Your task to perform on an android device: uninstall "VLC for Android" Image 0: 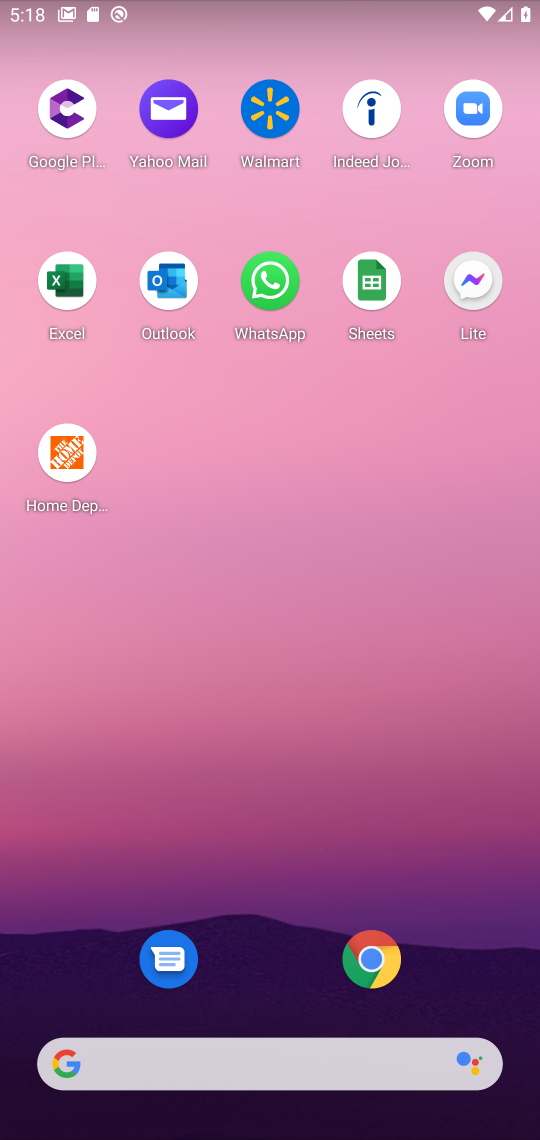
Step 0: drag from (258, 1044) to (277, 568)
Your task to perform on an android device: uninstall "VLC for Android" Image 1: 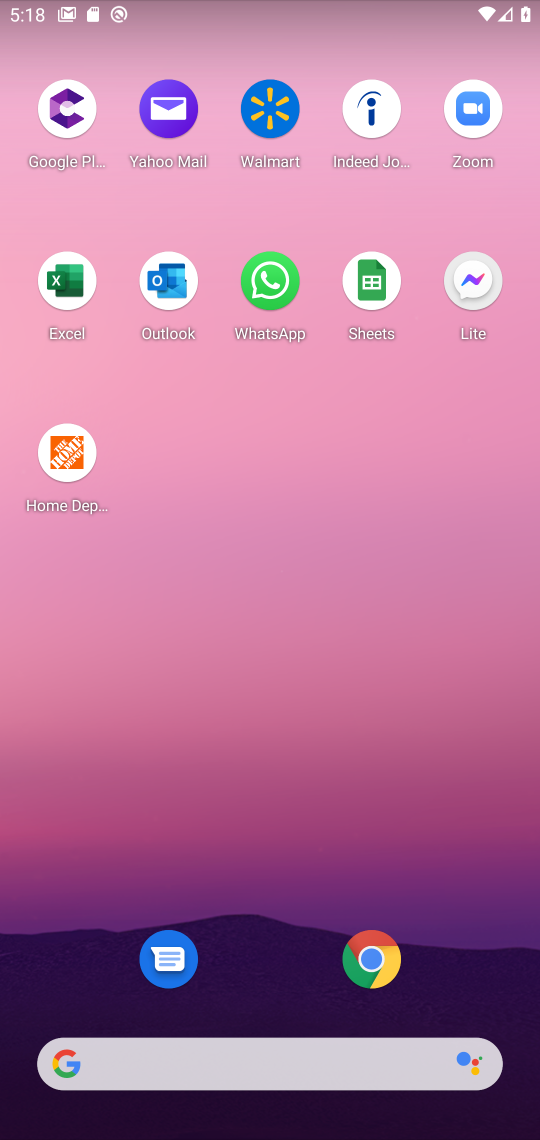
Step 1: drag from (306, 883) to (306, 462)
Your task to perform on an android device: uninstall "VLC for Android" Image 2: 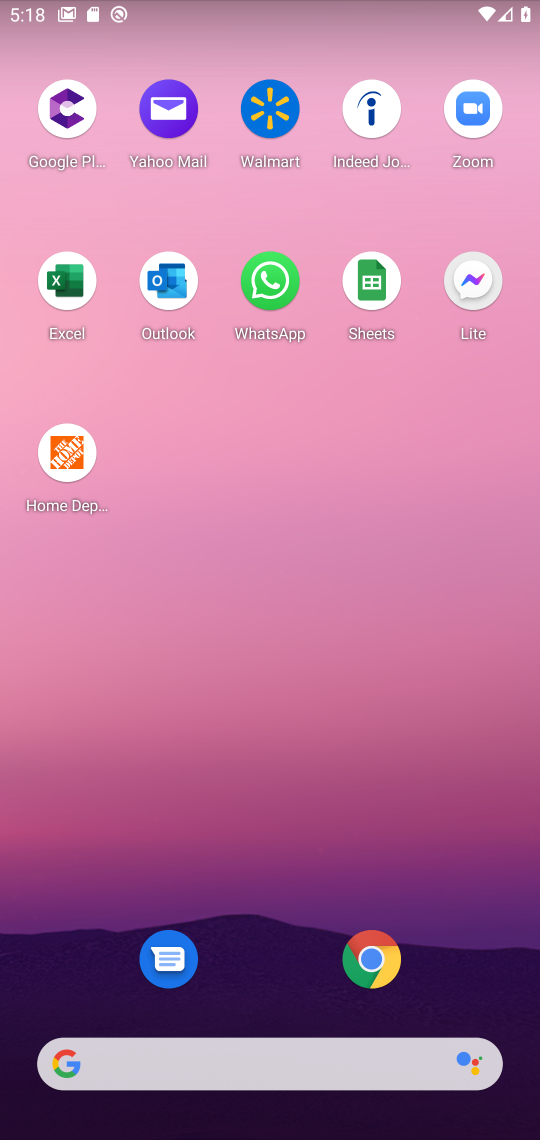
Step 2: drag from (256, 1051) to (256, 313)
Your task to perform on an android device: uninstall "VLC for Android" Image 3: 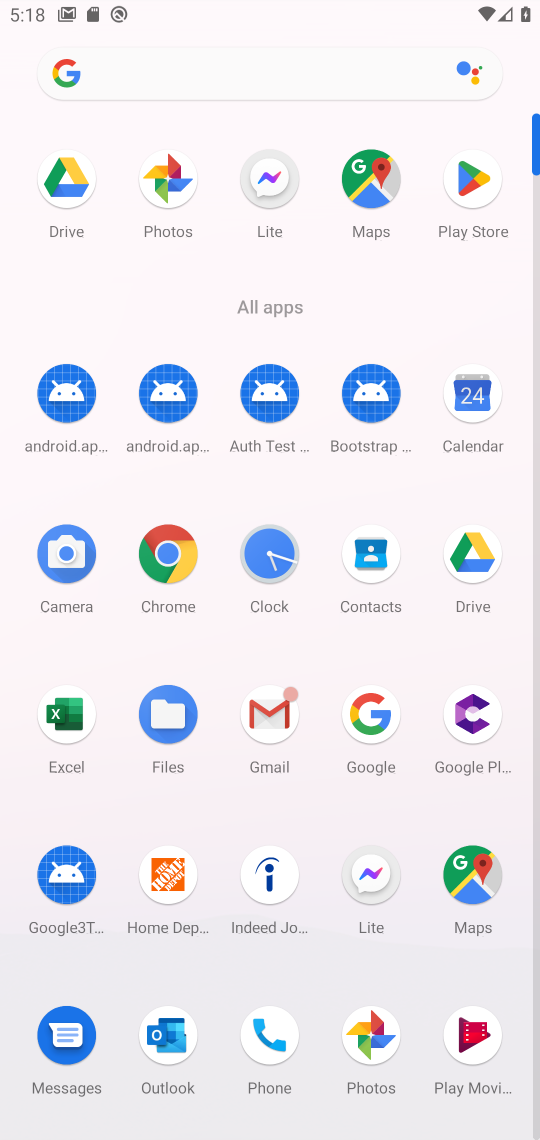
Step 3: click (452, 183)
Your task to perform on an android device: uninstall "VLC for Android" Image 4: 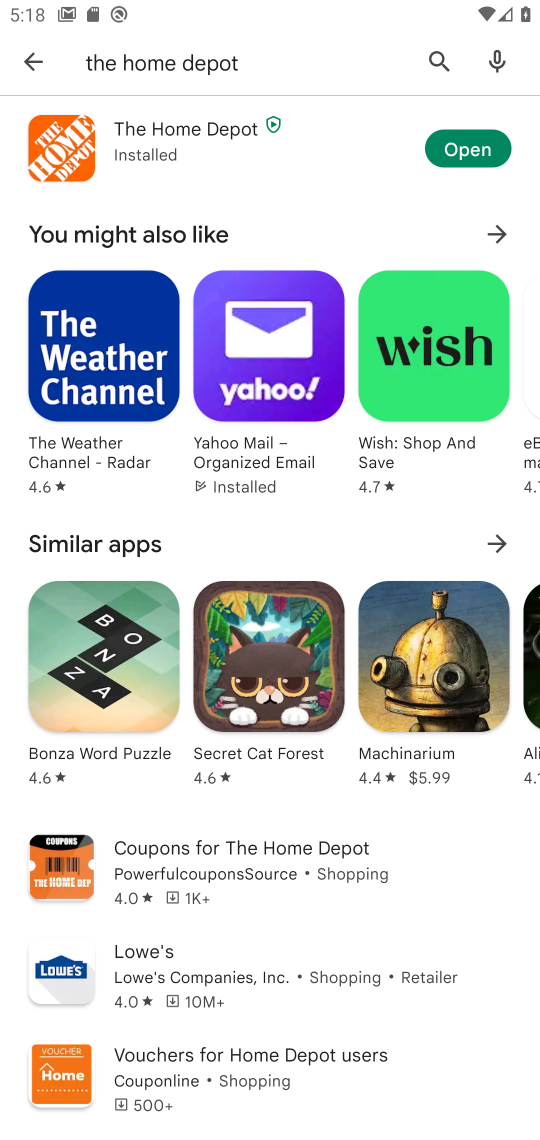
Step 4: click (445, 59)
Your task to perform on an android device: uninstall "VLC for Android" Image 5: 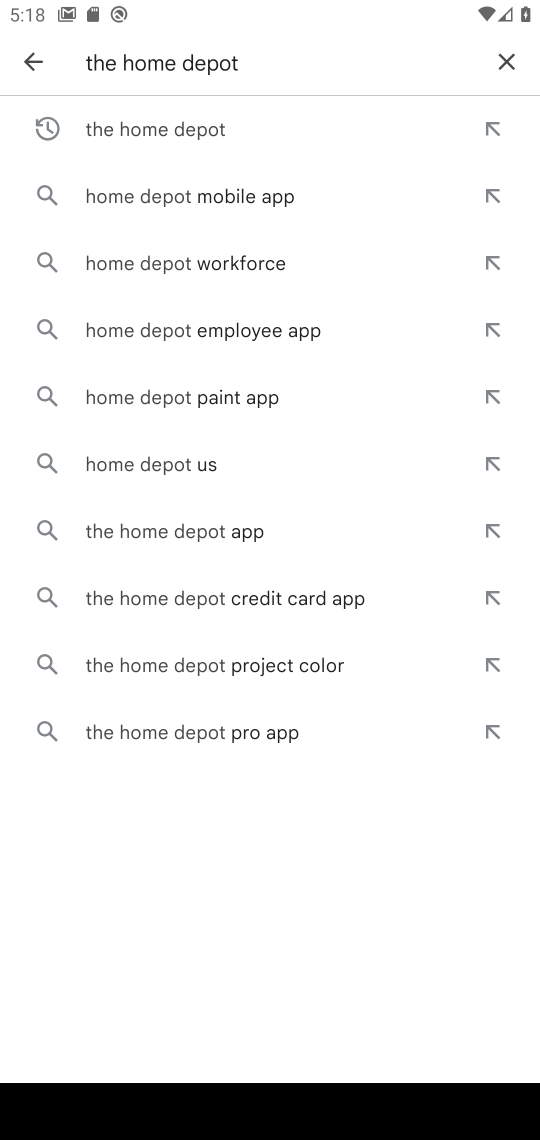
Step 5: click (499, 72)
Your task to perform on an android device: uninstall "VLC for Android" Image 6: 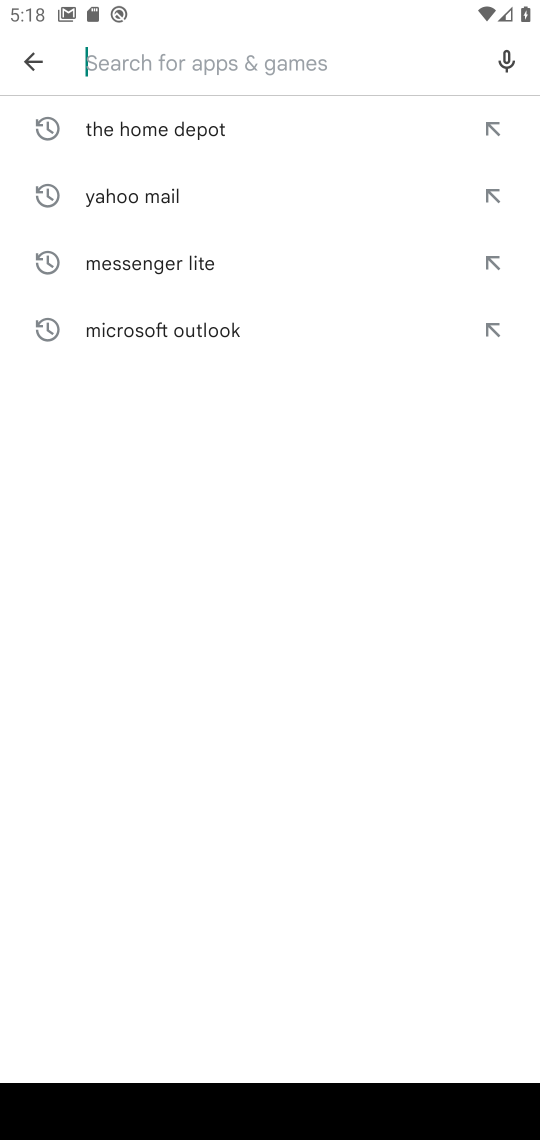
Step 6: type "VLC for Android"
Your task to perform on an android device: uninstall "VLC for Android" Image 7: 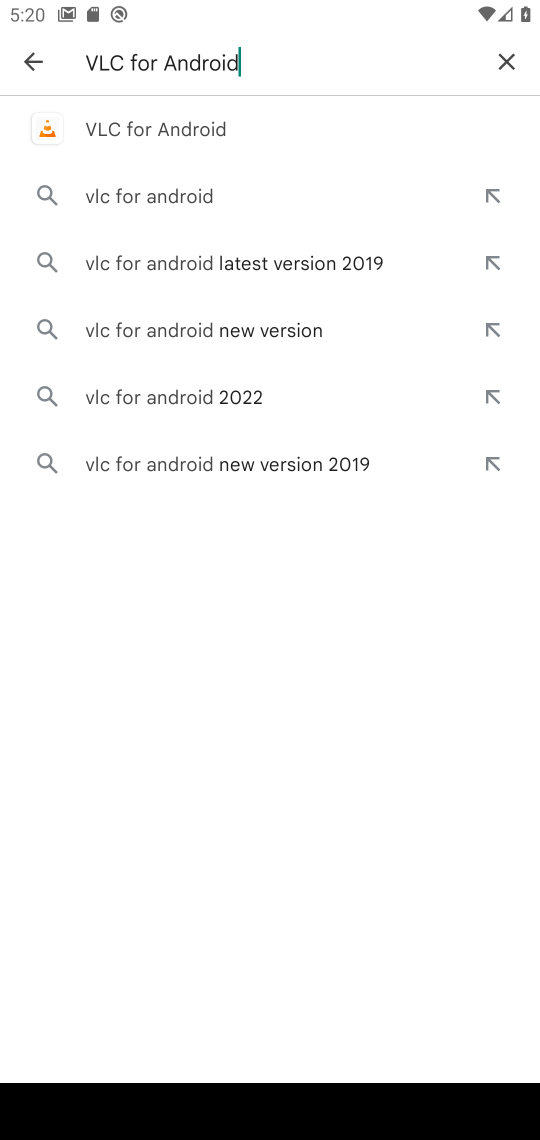
Step 7: click (89, 122)
Your task to perform on an android device: uninstall "VLC for Android" Image 8: 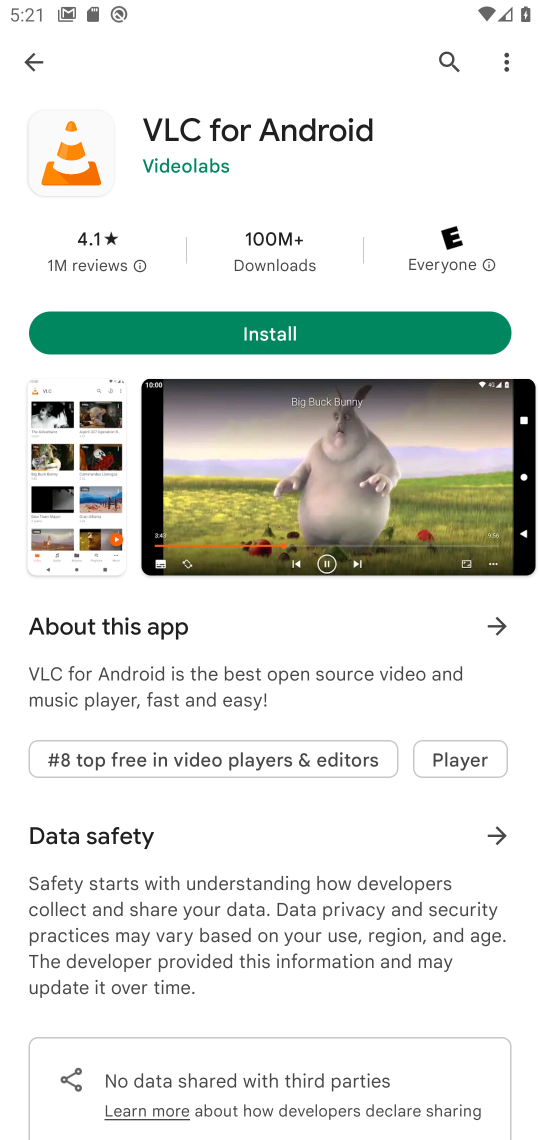
Step 8: task complete